Your task to perform on an android device: open app "eBay: The shopping marketplace" (install if not already installed) Image 0: 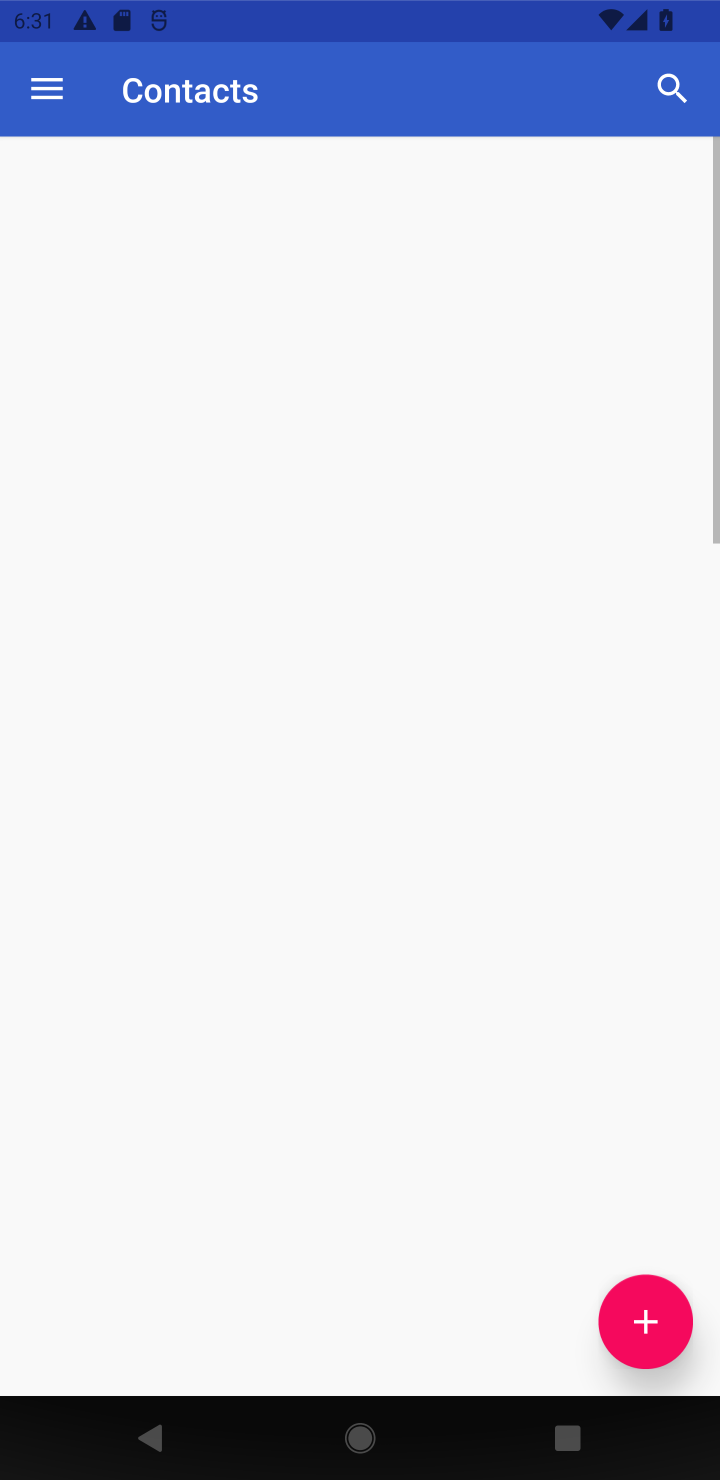
Step 0: press home button
Your task to perform on an android device: open app "eBay: The shopping marketplace" (install if not already installed) Image 1: 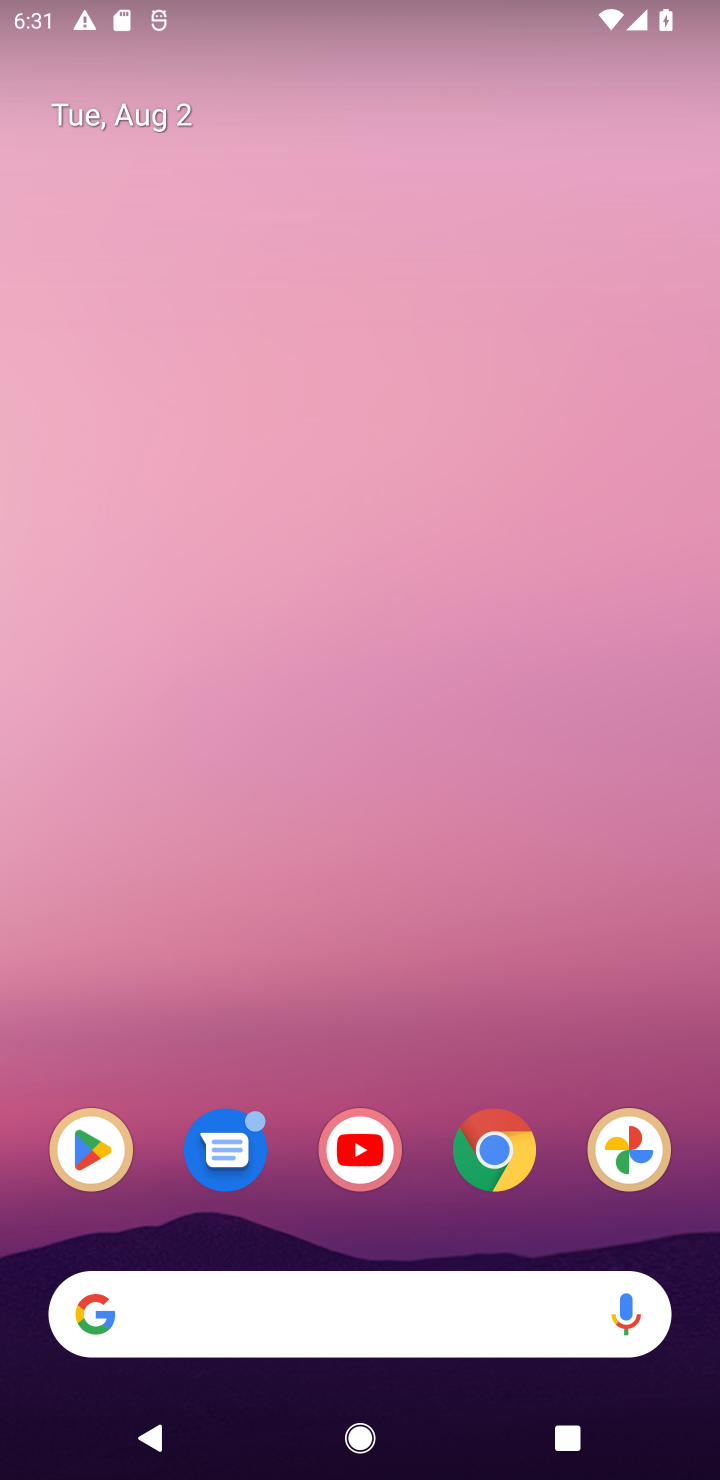
Step 1: drag from (362, 1245) to (294, 739)
Your task to perform on an android device: open app "eBay: The shopping marketplace" (install if not already installed) Image 2: 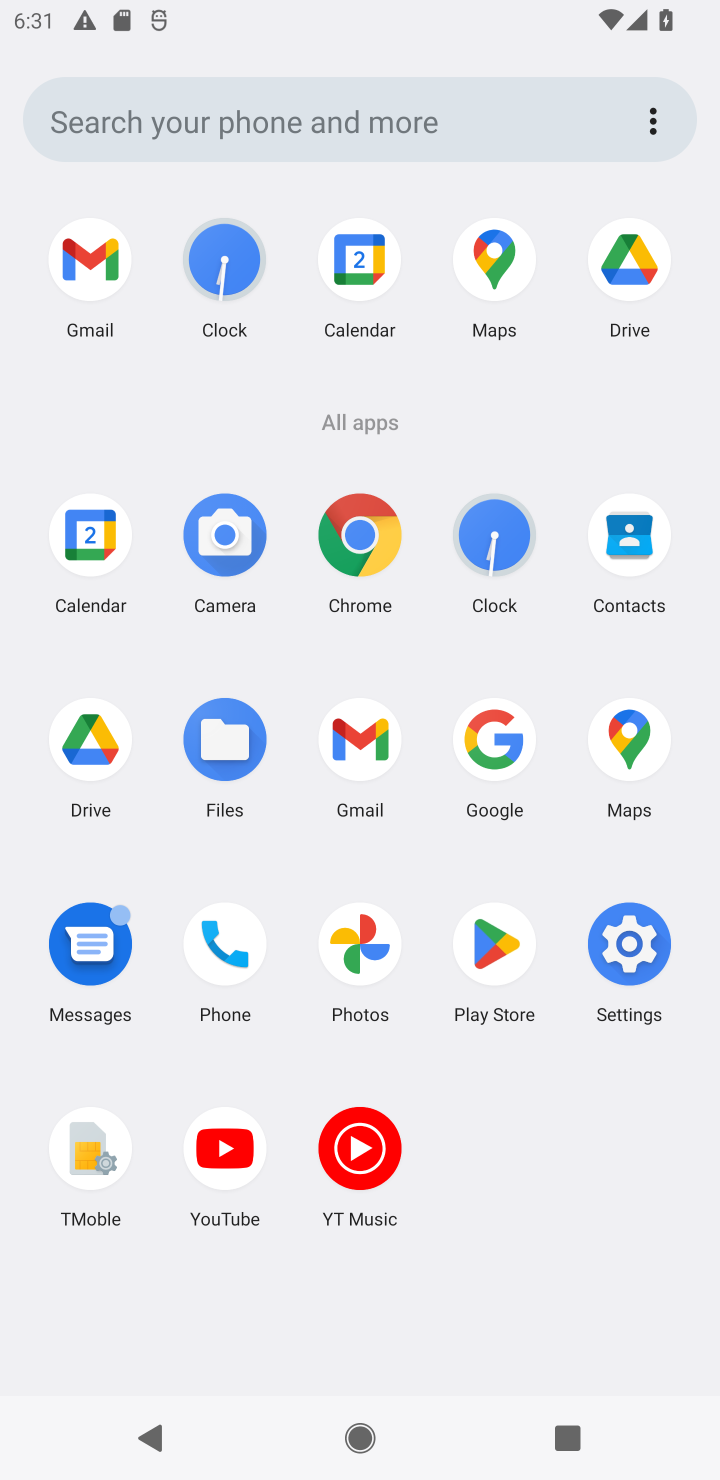
Step 2: click (470, 956)
Your task to perform on an android device: open app "eBay: The shopping marketplace" (install if not already installed) Image 3: 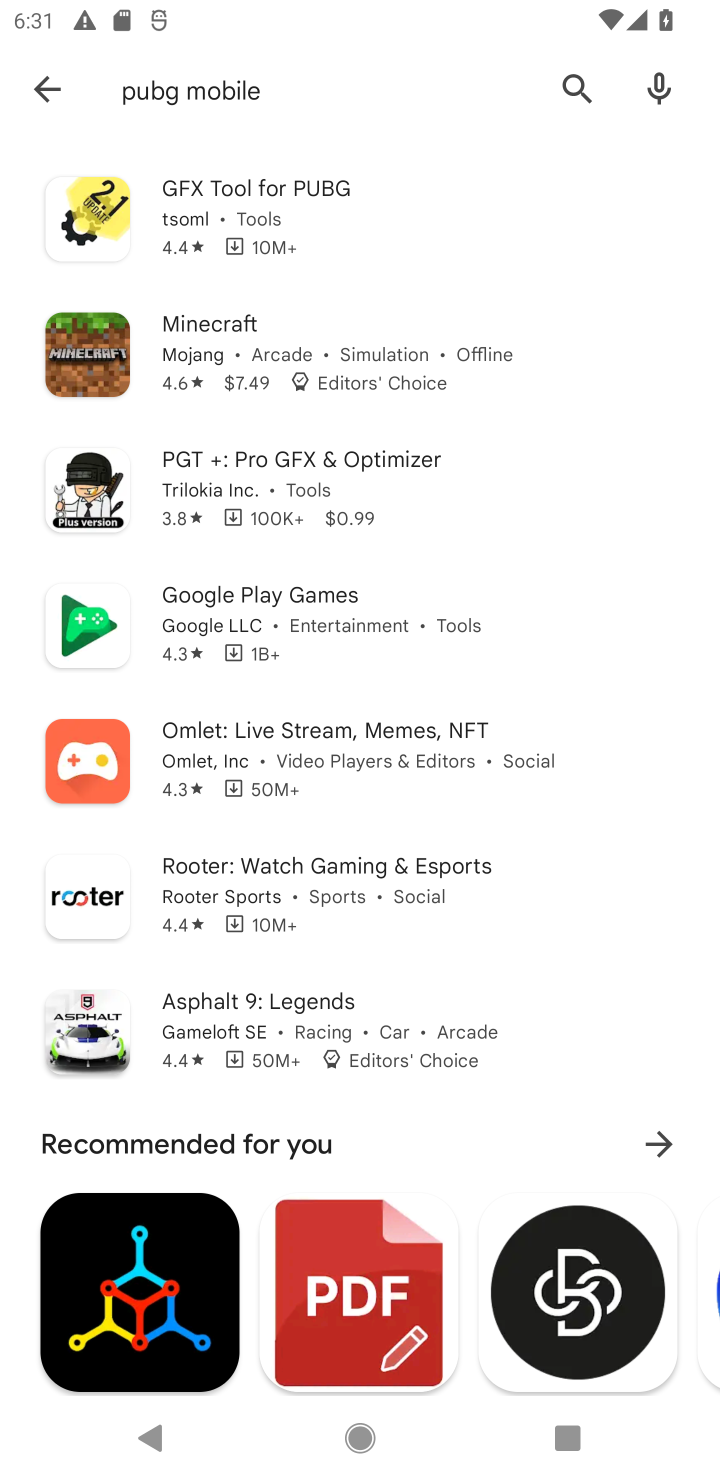
Step 3: click (25, 95)
Your task to perform on an android device: open app "eBay: The shopping marketplace" (install if not already installed) Image 4: 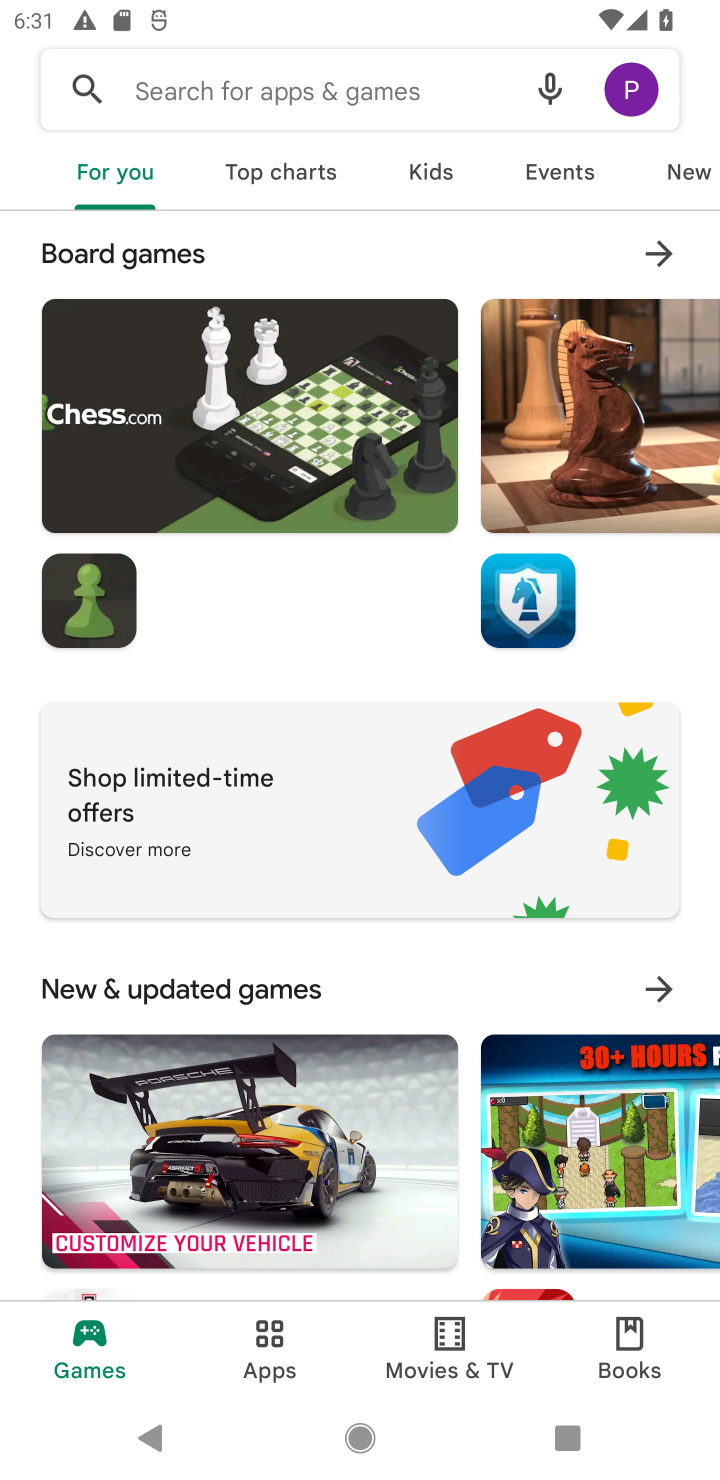
Step 4: click (203, 80)
Your task to perform on an android device: open app "eBay: The shopping marketplace" (install if not already installed) Image 5: 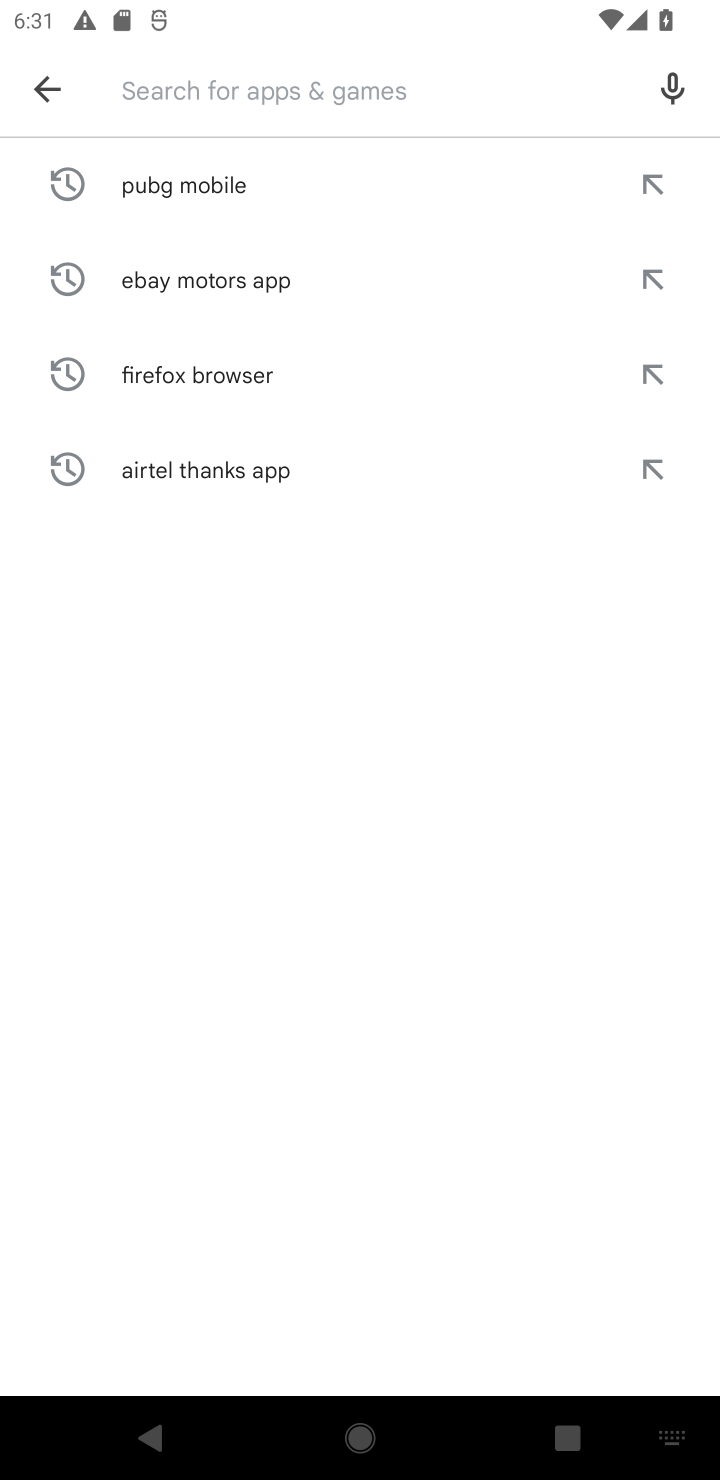
Step 5: drag from (109, 1414) to (227, 1332)
Your task to perform on an android device: open app "eBay: The shopping marketplace" (install if not already installed) Image 6: 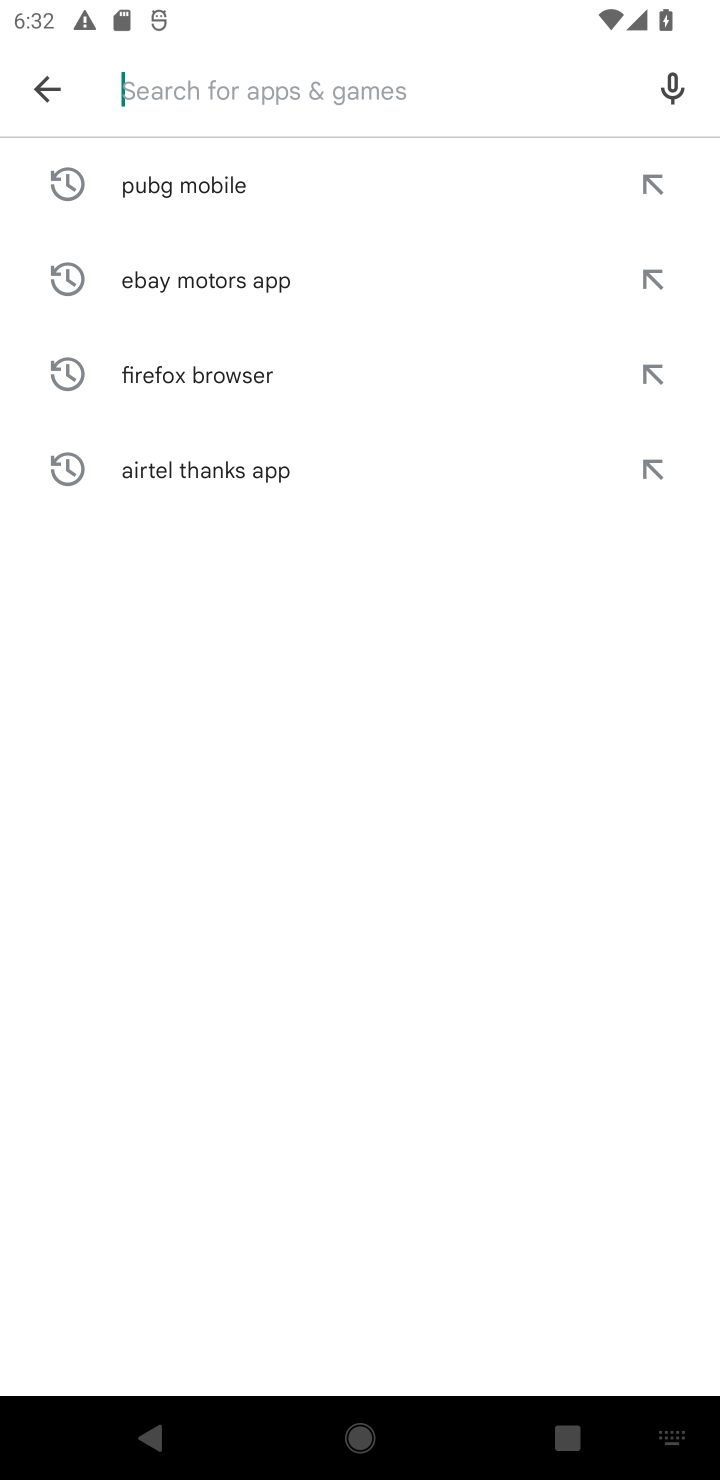
Step 6: type "eBay"
Your task to perform on an android device: open app "eBay: The shopping marketplace" (install if not already installed) Image 7: 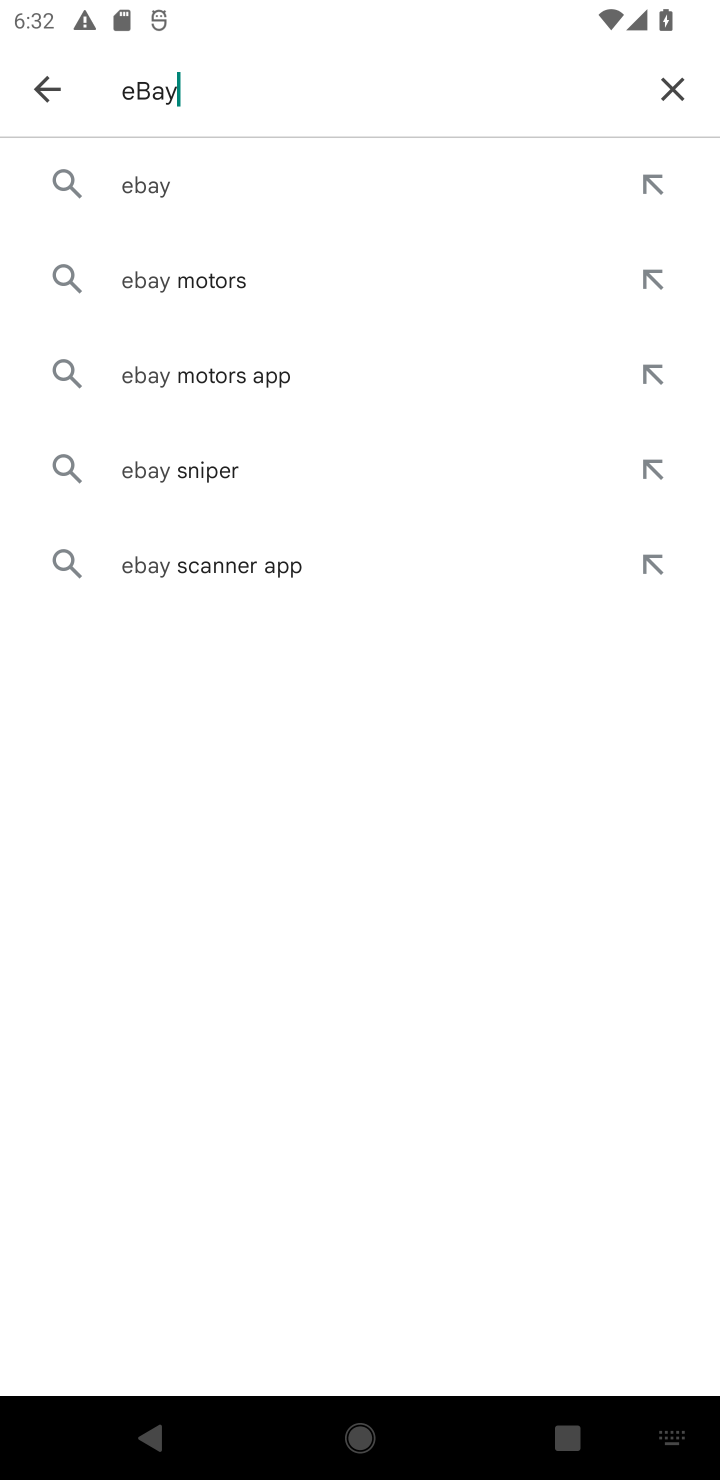
Step 7: click (119, 200)
Your task to perform on an android device: open app "eBay: The shopping marketplace" (install if not already installed) Image 8: 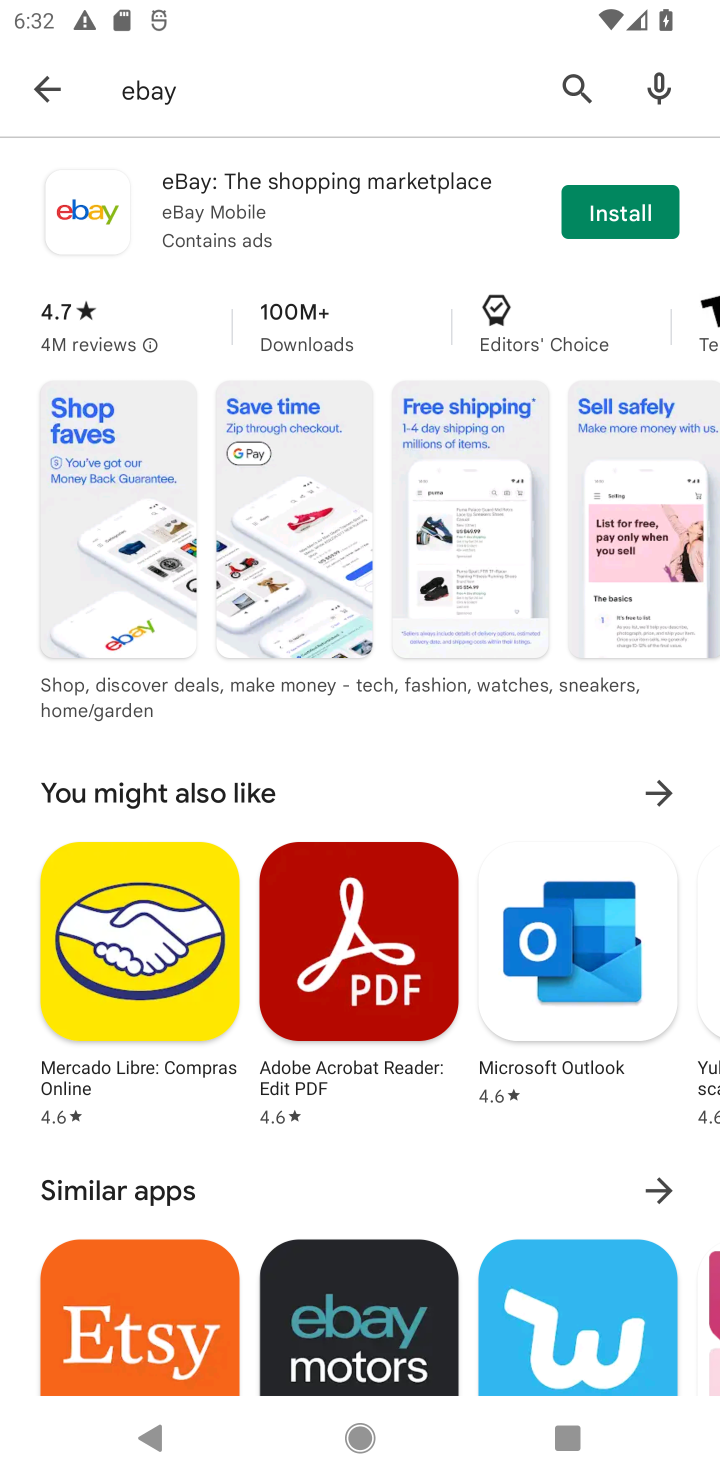
Step 8: click (603, 211)
Your task to perform on an android device: open app "eBay: The shopping marketplace" (install if not already installed) Image 9: 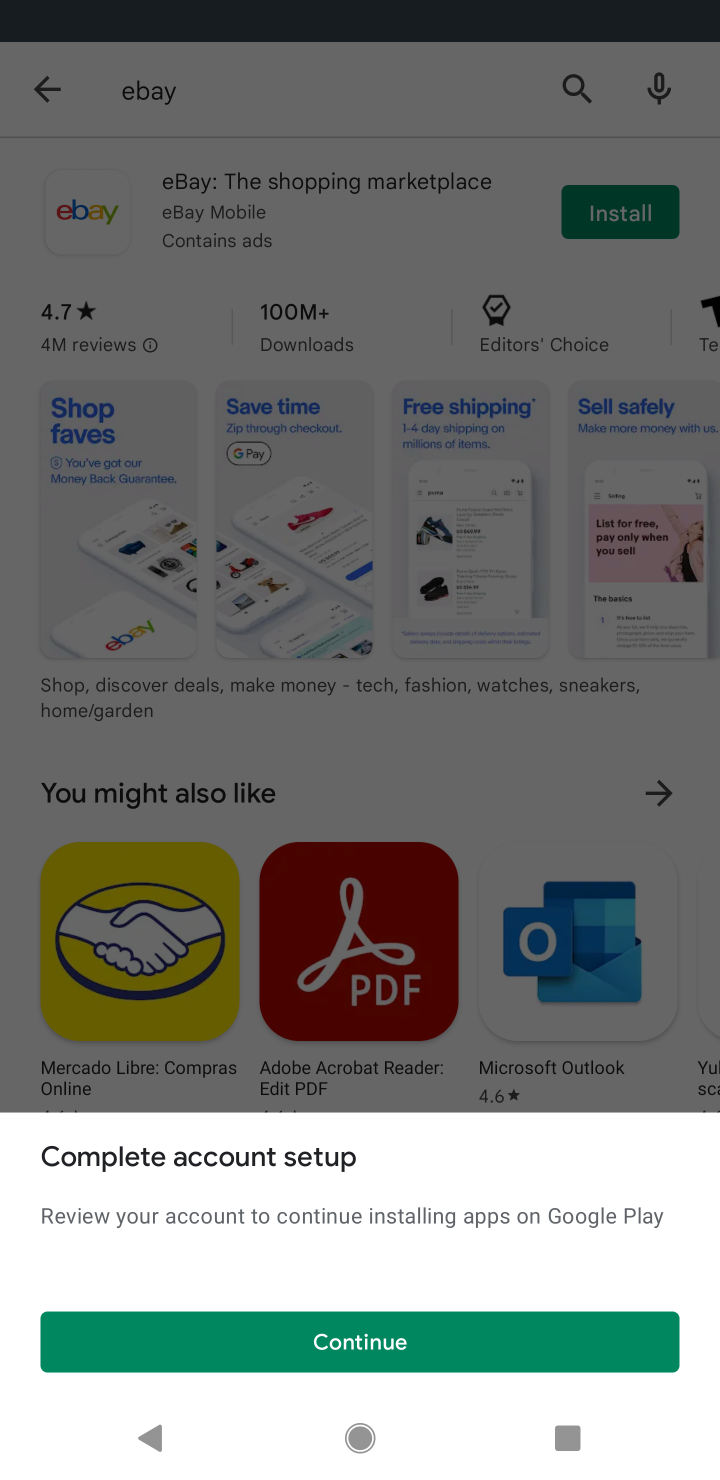
Step 9: click (407, 1335)
Your task to perform on an android device: open app "eBay: The shopping marketplace" (install if not already installed) Image 10: 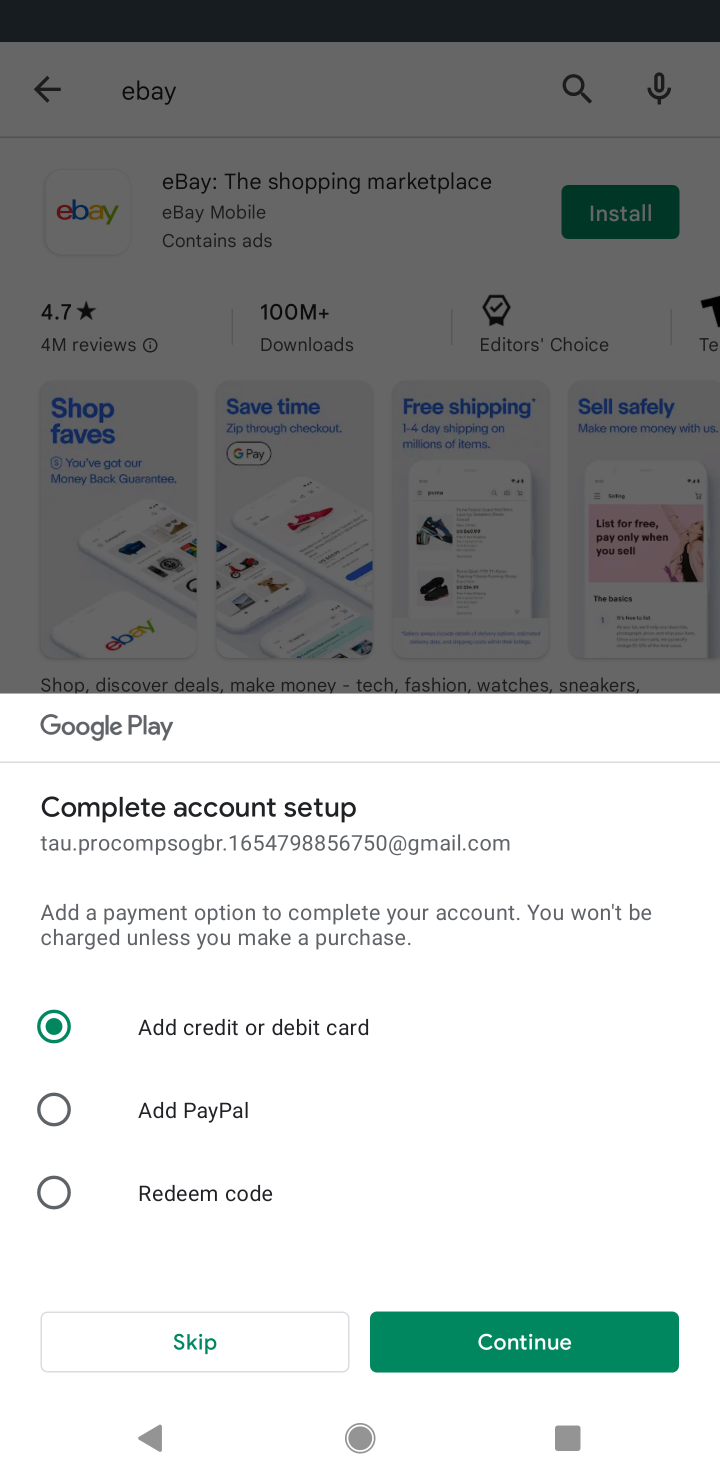
Step 10: click (261, 1347)
Your task to perform on an android device: open app "eBay: The shopping marketplace" (install if not already installed) Image 11: 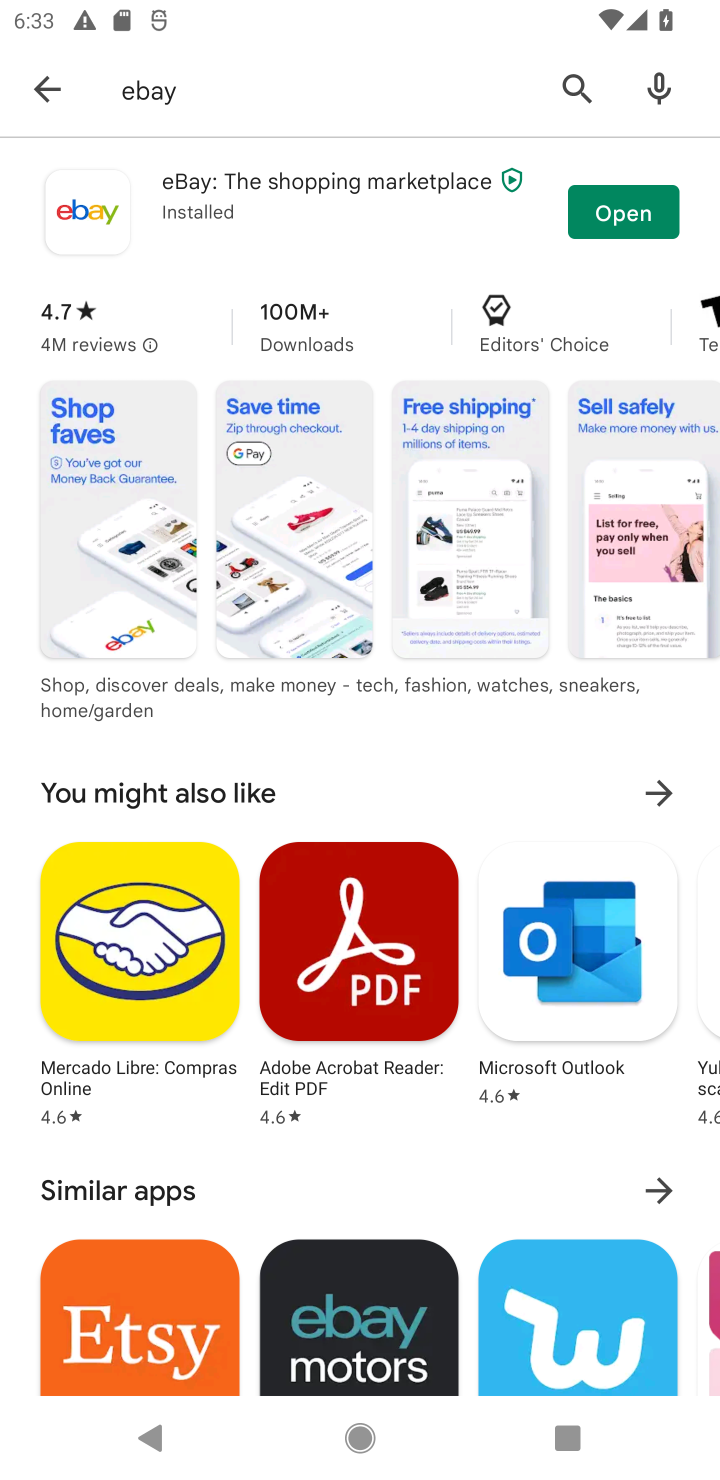
Step 11: click (634, 237)
Your task to perform on an android device: open app "eBay: The shopping marketplace" (install if not already installed) Image 12: 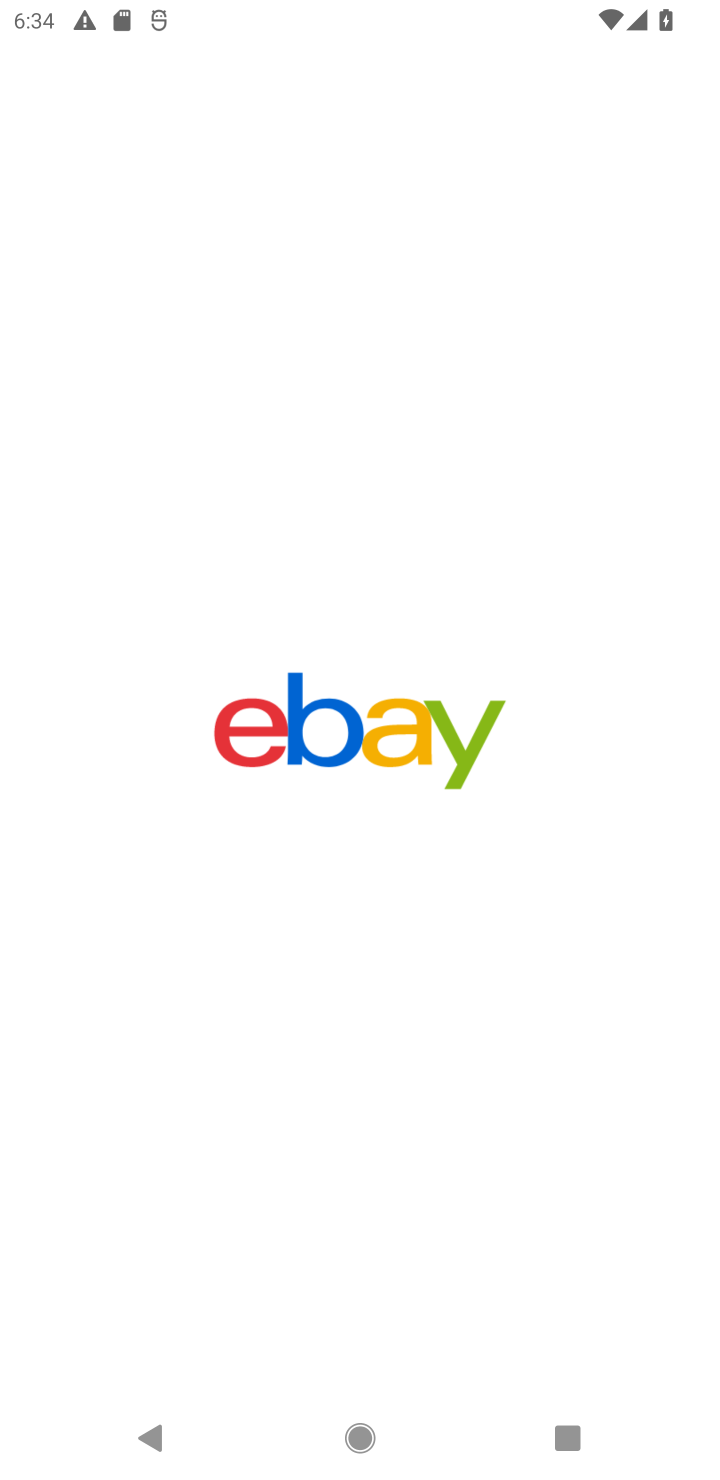
Step 12: task complete